Your task to perform on an android device: Go to Android settings Image 0: 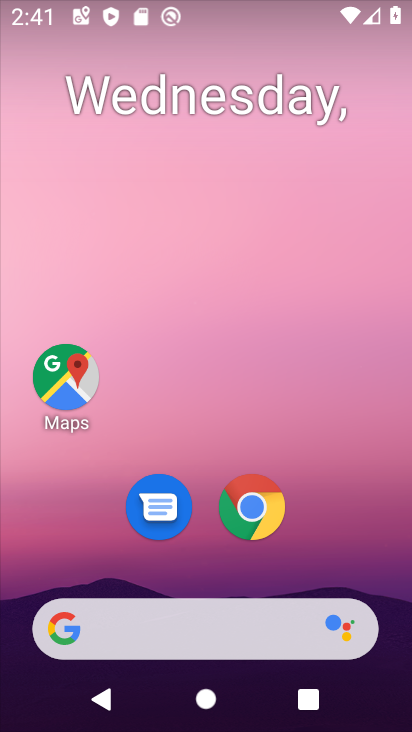
Step 0: drag from (362, 504) to (358, 41)
Your task to perform on an android device: Go to Android settings Image 1: 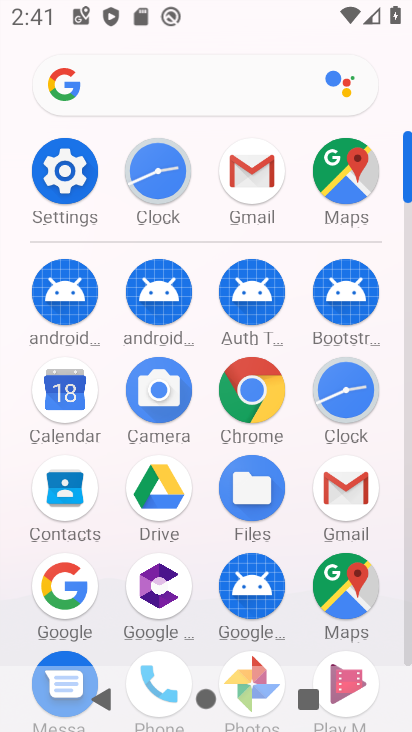
Step 1: click (76, 170)
Your task to perform on an android device: Go to Android settings Image 2: 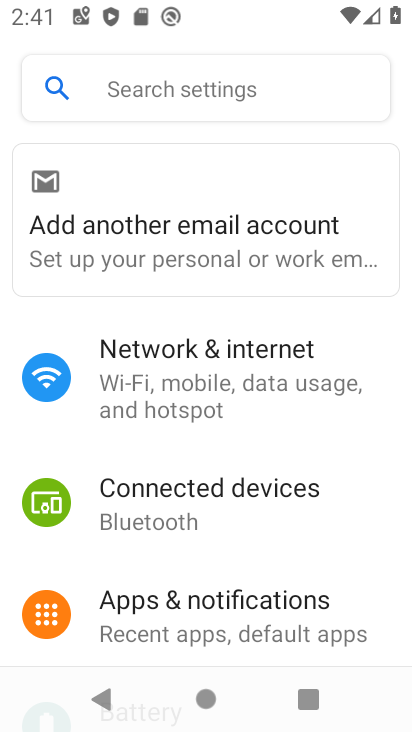
Step 2: task complete